Your task to perform on an android device: Go to calendar. Show me events next week Image 0: 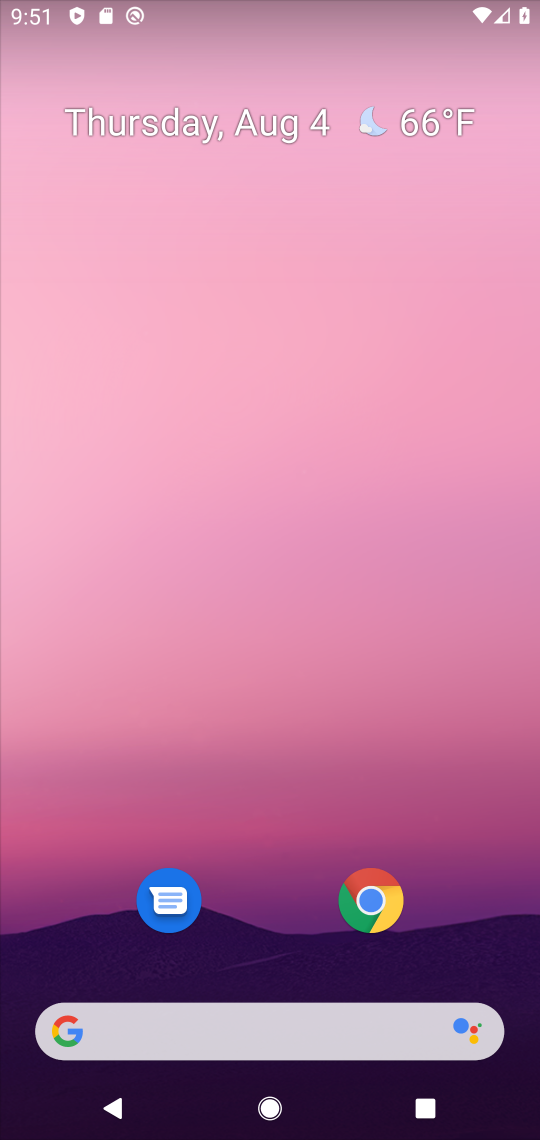
Step 0: drag from (498, 947) to (388, 133)
Your task to perform on an android device: Go to calendar. Show me events next week Image 1: 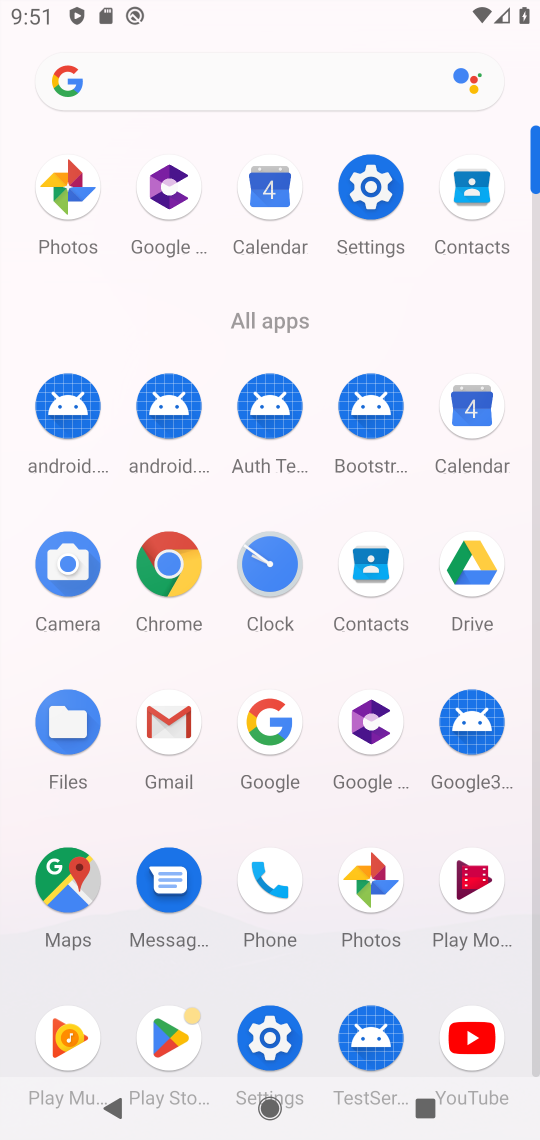
Step 1: click (478, 434)
Your task to perform on an android device: Go to calendar. Show me events next week Image 2: 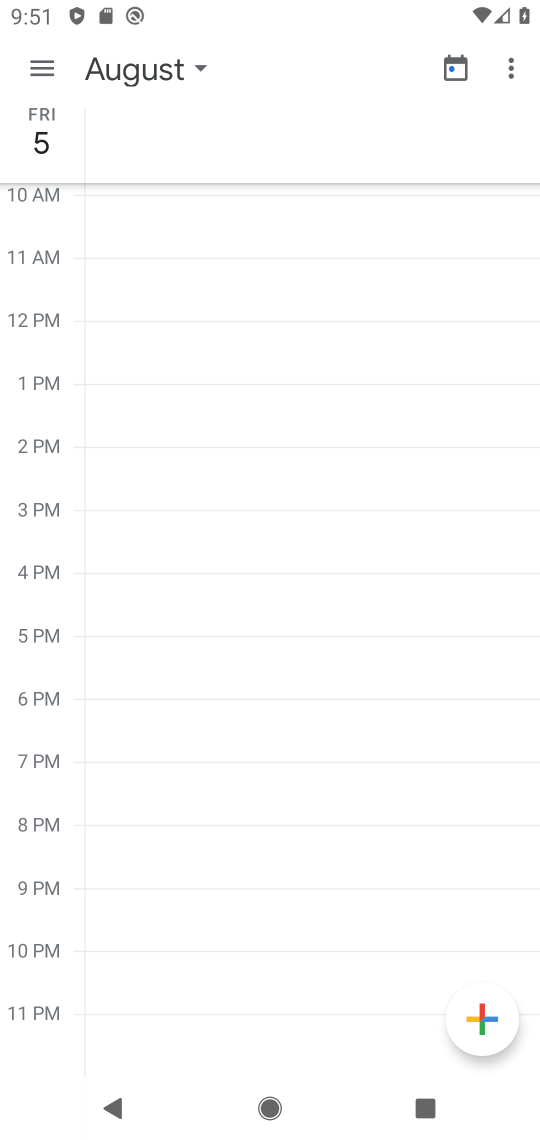
Step 2: click (51, 51)
Your task to perform on an android device: Go to calendar. Show me events next week Image 3: 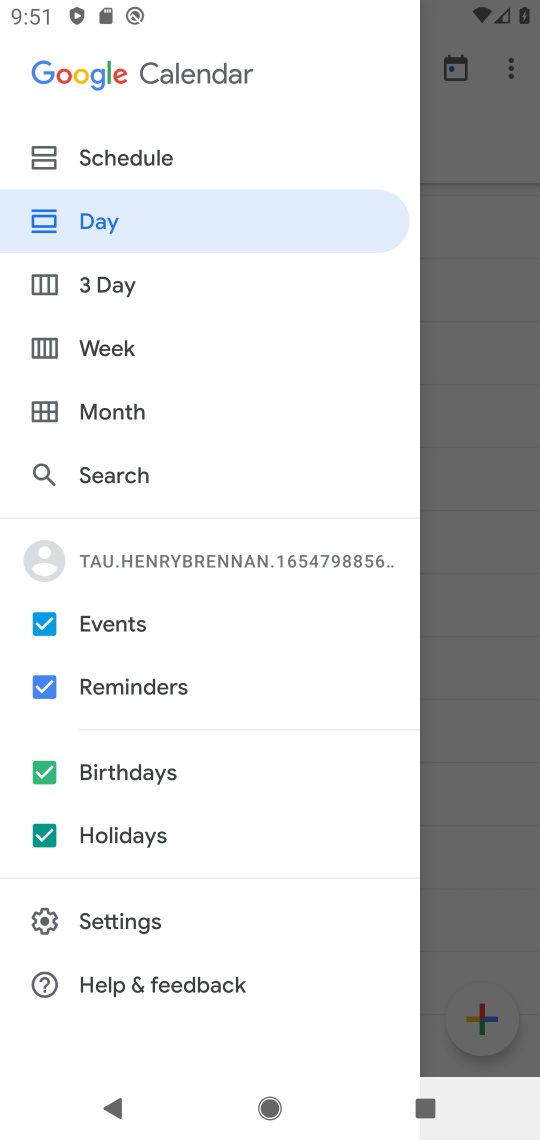
Step 3: click (45, 838)
Your task to perform on an android device: Go to calendar. Show me events next week Image 4: 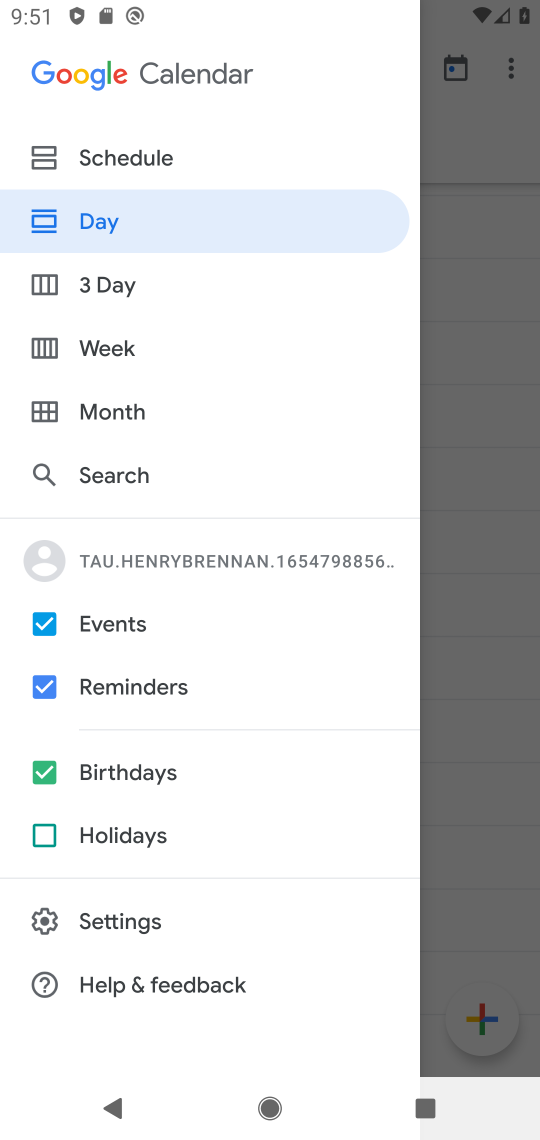
Step 4: click (41, 779)
Your task to perform on an android device: Go to calendar. Show me events next week Image 5: 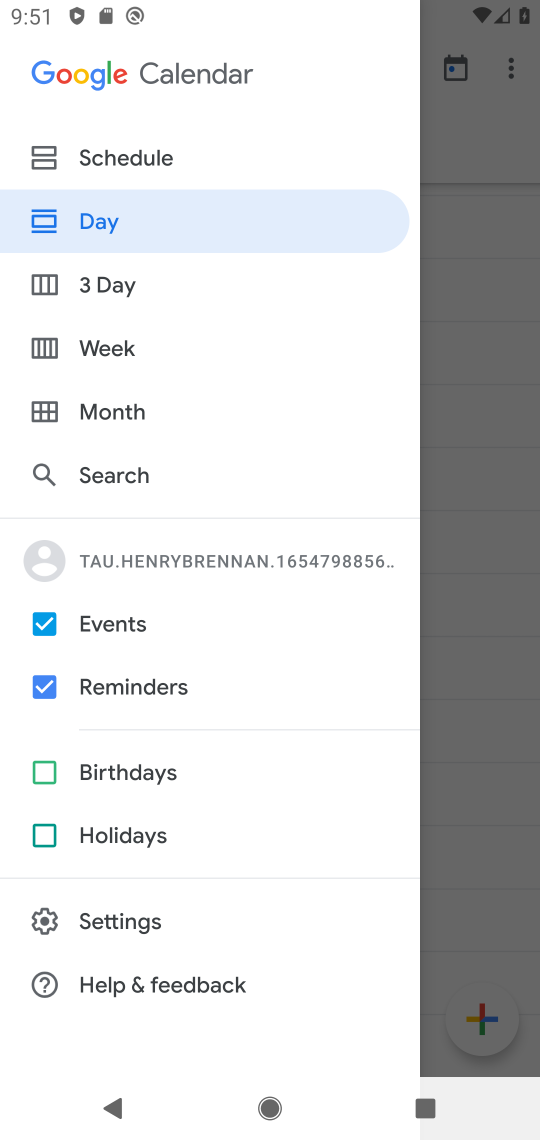
Step 5: click (36, 691)
Your task to perform on an android device: Go to calendar. Show me events next week Image 6: 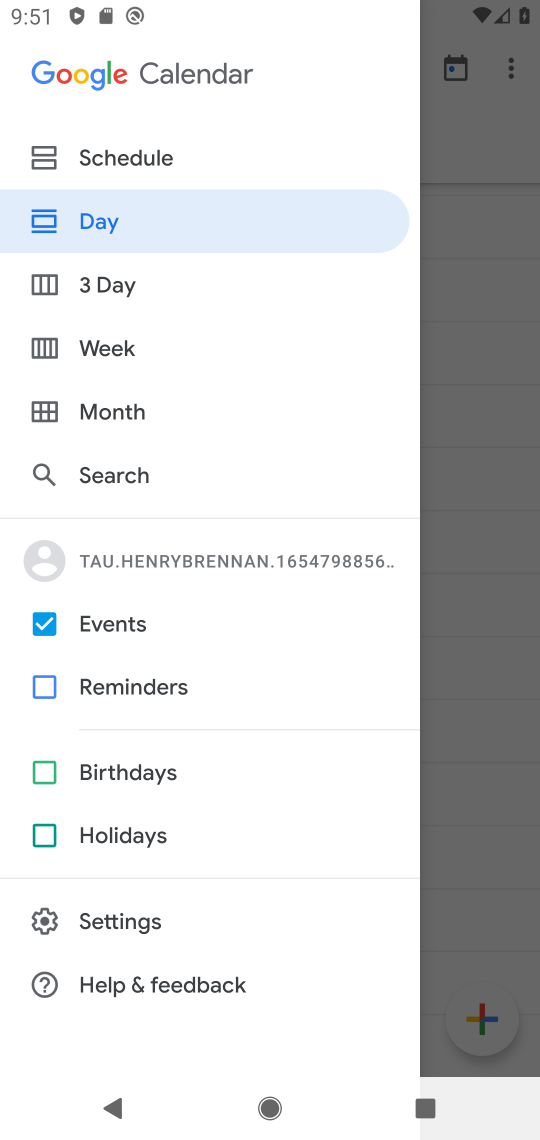
Step 6: click (91, 355)
Your task to perform on an android device: Go to calendar. Show me events next week Image 7: 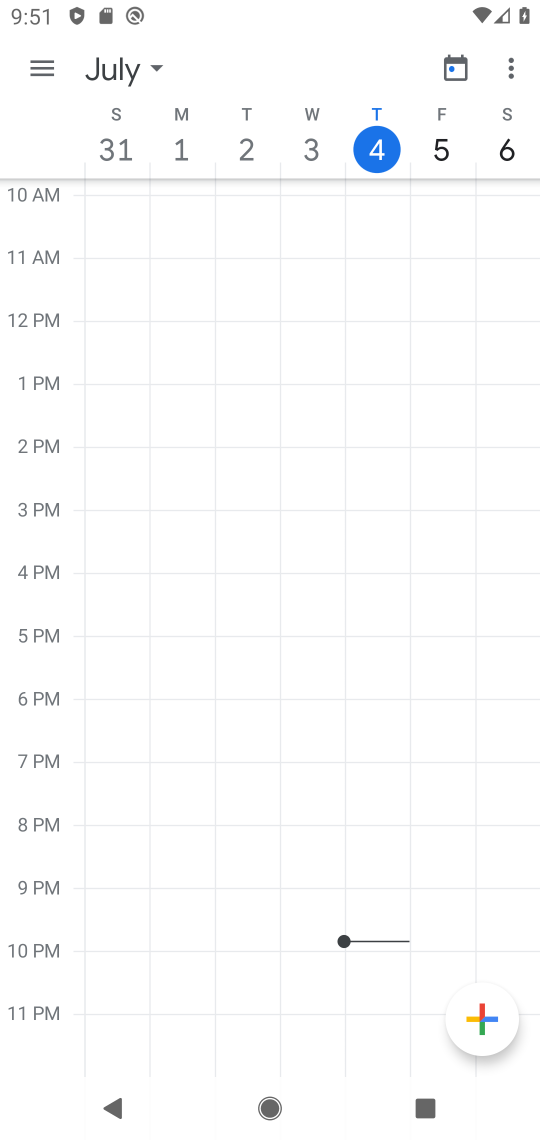
Step 7: task complete